Your task to perform on an android device: Go to Amazon Image 0: 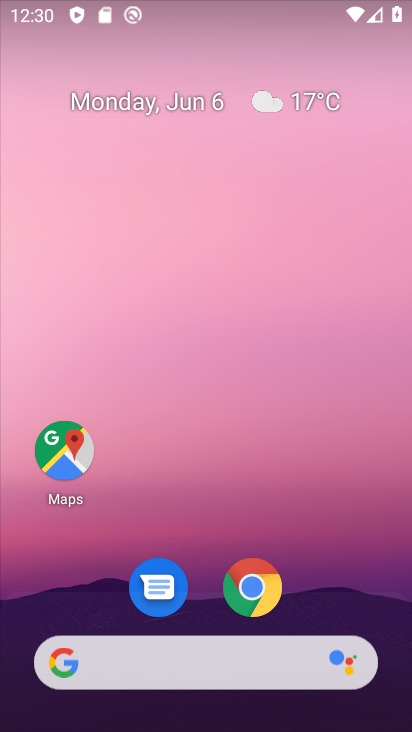
Step 0: click (247, 595)
Your task to perform on an android device: Go to Amazon Image 1: 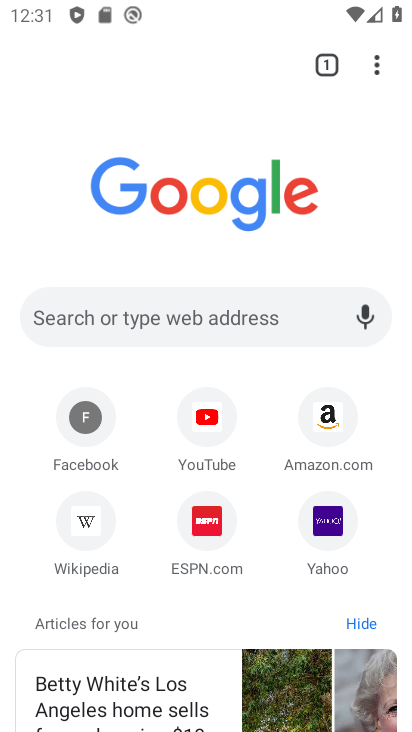
Step 1: click (325, 427)
Your task to perform on an android device: Go to Amazon Image 2: 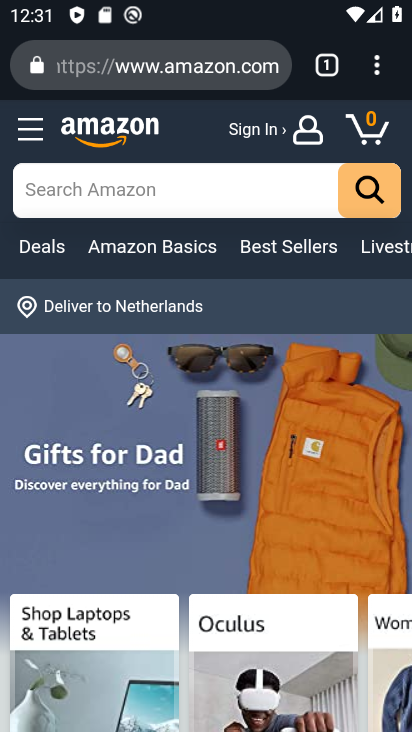
Step 2: task complete